Your task to perform on an android device: Open Yahoo.com Image 0: 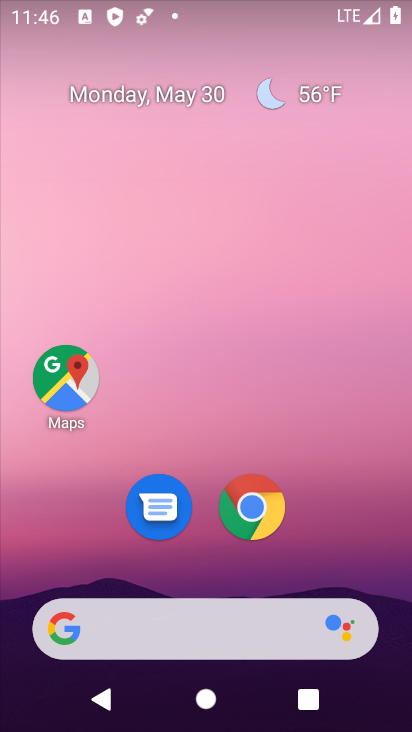
Step 0: drag from (391, 585) to (279, 47)
Your task to perform on an android device: Open Yahoo.com Image 1: 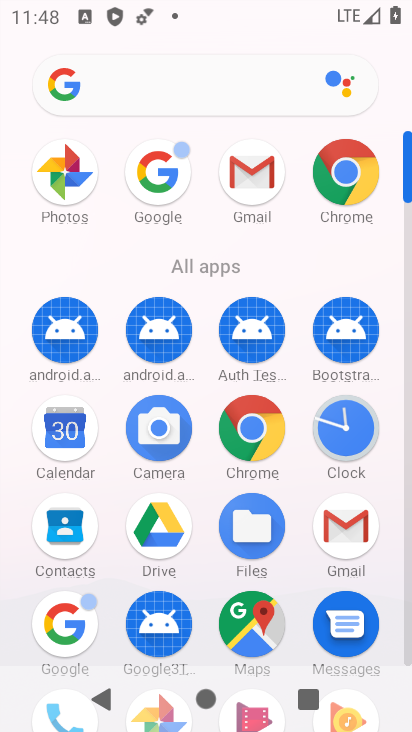
Step 1: click (72, 613)
Your task to perform on an android device: Open Yahoo.com Image 2: 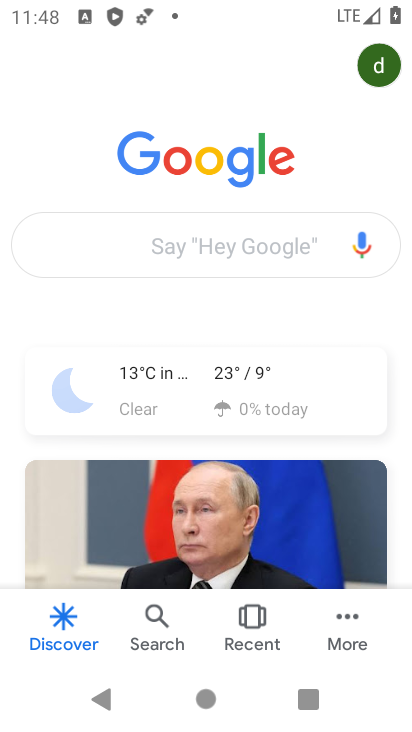
Step 2: click (187, 239)
Your task to perform on an android device: Open Yahoo.com Image 3: 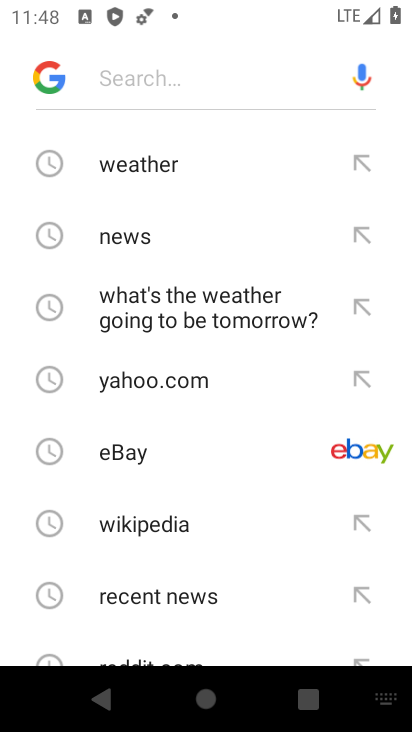
Step 3: click (209, 376)
Your task to perform on an android device: Open Yahoo.com Image 4: 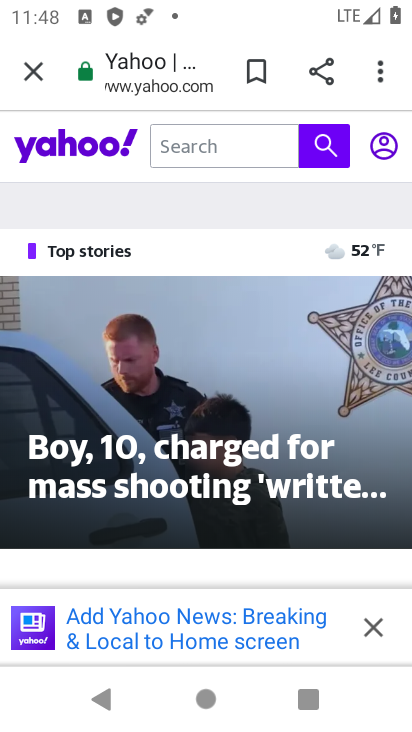
Step 4: task complete